Your task to perform on an android device: Open Google Maps Image 0: 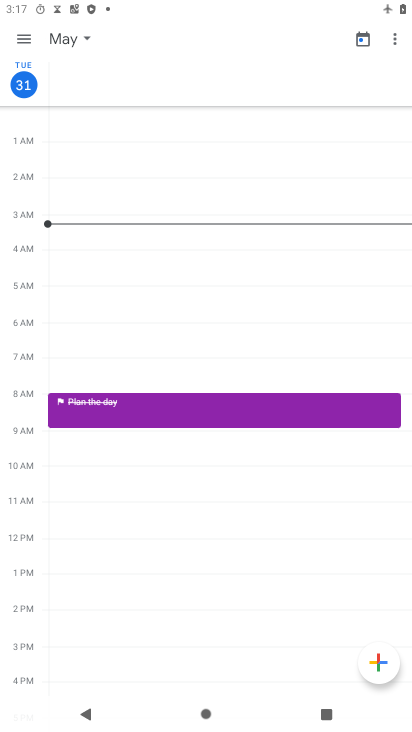
Step 0: press home button
Your task to perform on an android device: Open Google Maps Image 1: 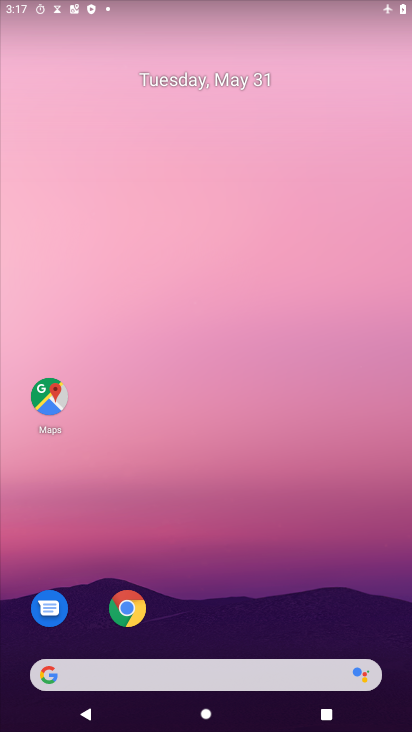
Step 1: click (47, 403)
Your task to perform on an android device: Open Google Maps Image 2: 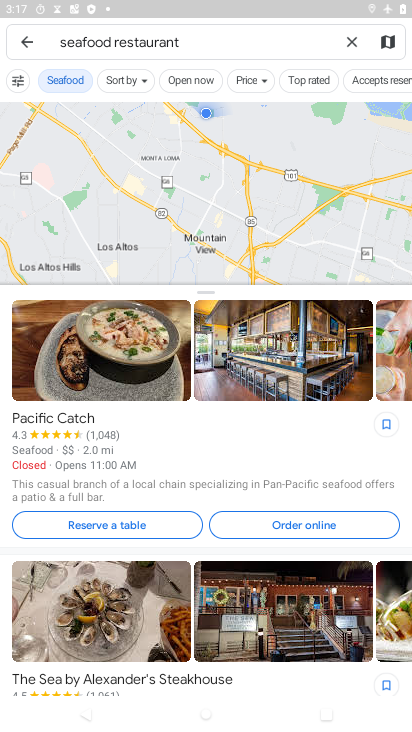
Step 2: click (31, 37)
Your task to perform on an android device: Open Google Maps Image 3: 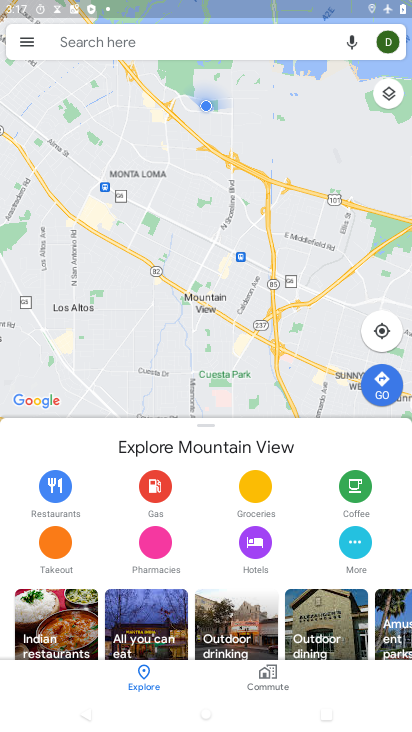
Step 3: task complete